Your task to perform on an android device: Search for vegetarian restaurants on Maps Image 0: 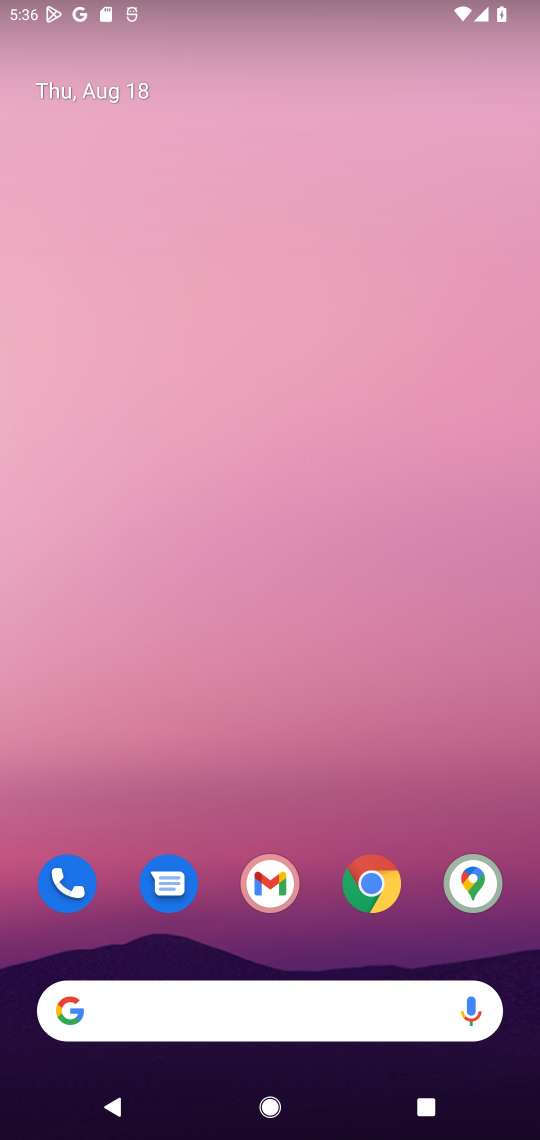
Step 0: drag from (330, 922) to (171, 18)
Your task to perform on an android device: Search for vegetarian restaurants on Maps Image 1: 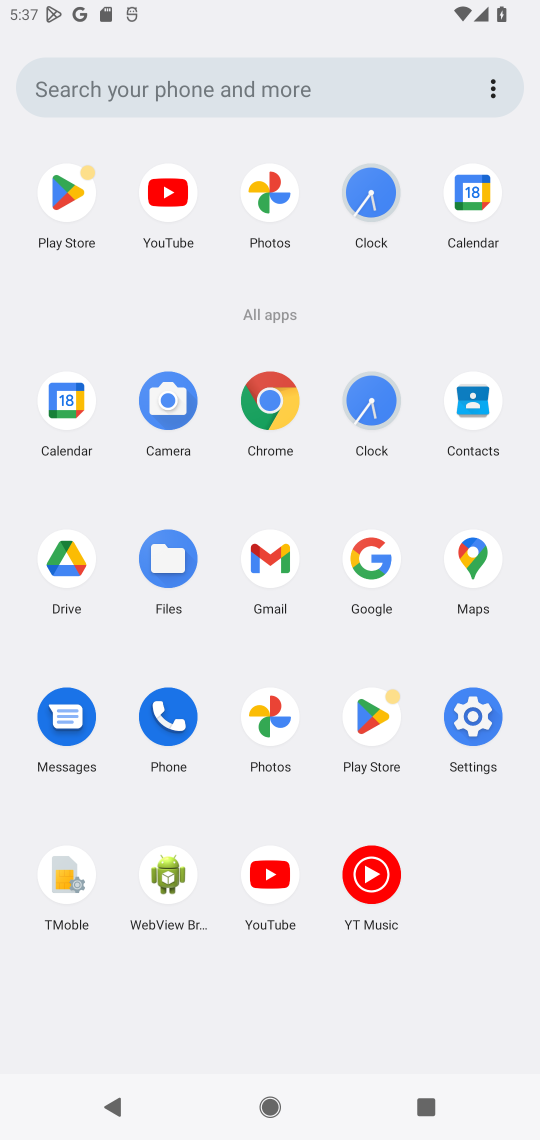
Step 1: click (471, 570)
Your task to perform on an android device: Search for vegetarian restaurants on Maps Image 2: 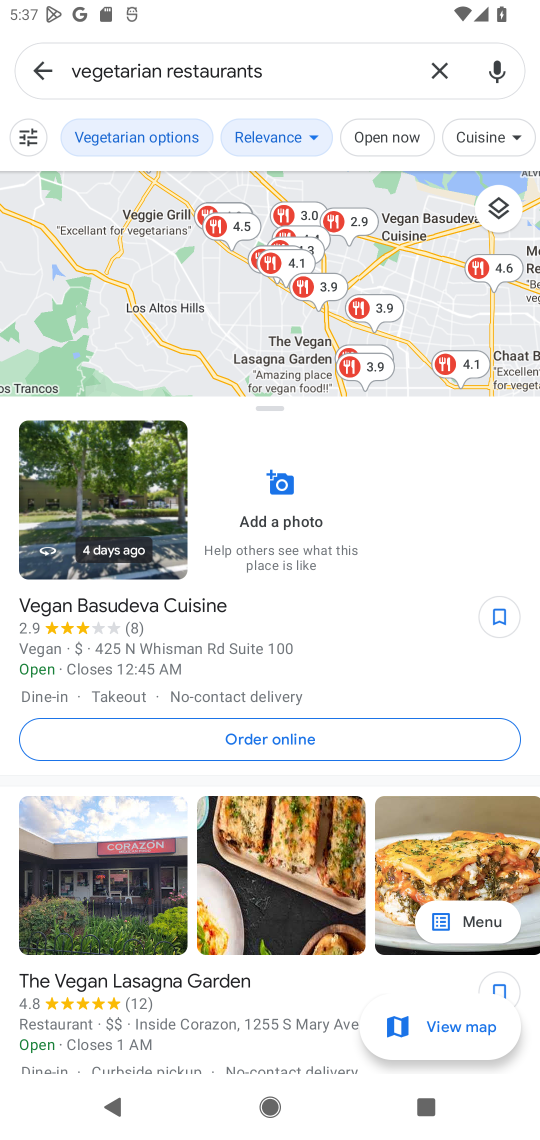
Step 2: task complete